Your task to perform on an android device: Clear all items from cart on bestbuy.com. Add usb-a to the cart on bestbuy.com Image 0: 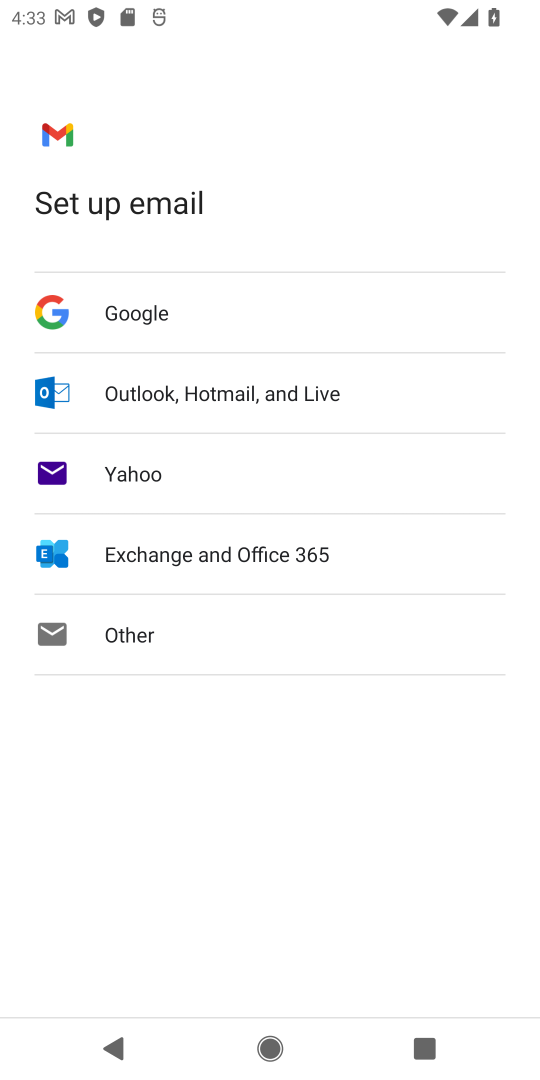
Step 0: press home button
Your task to perform on an android device: Clear all items from cart on bestbuy.com. Add usb-a to the cart on bestbuy.com Image 1: 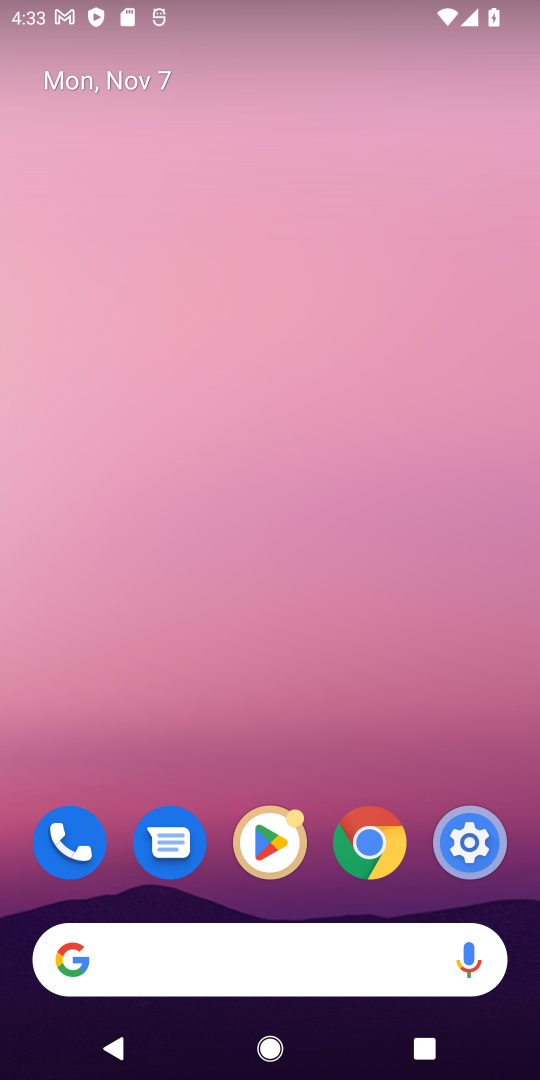
Step 1: click (375, 840)
Your task to perform on an android device: Clear all items from cart on bestbuy.com. Add usb-a to the cart on bestbuy.com Image 2: 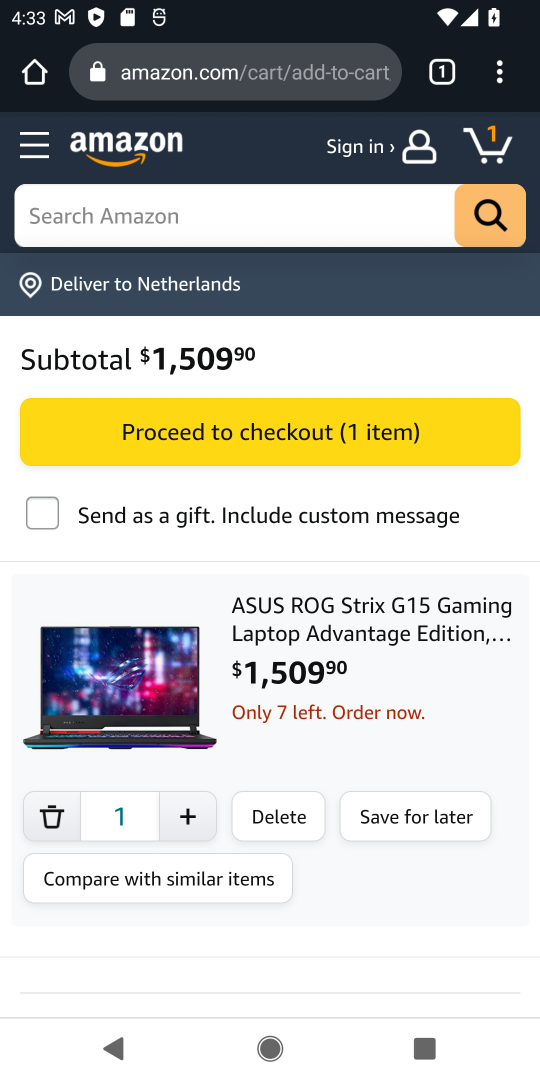
Step 2: click (239, 79)
Your task to perform on an android device: Clear all items from cart on bestbuy.com. Add usb-a to the cart on bestbuy.com Image 3: 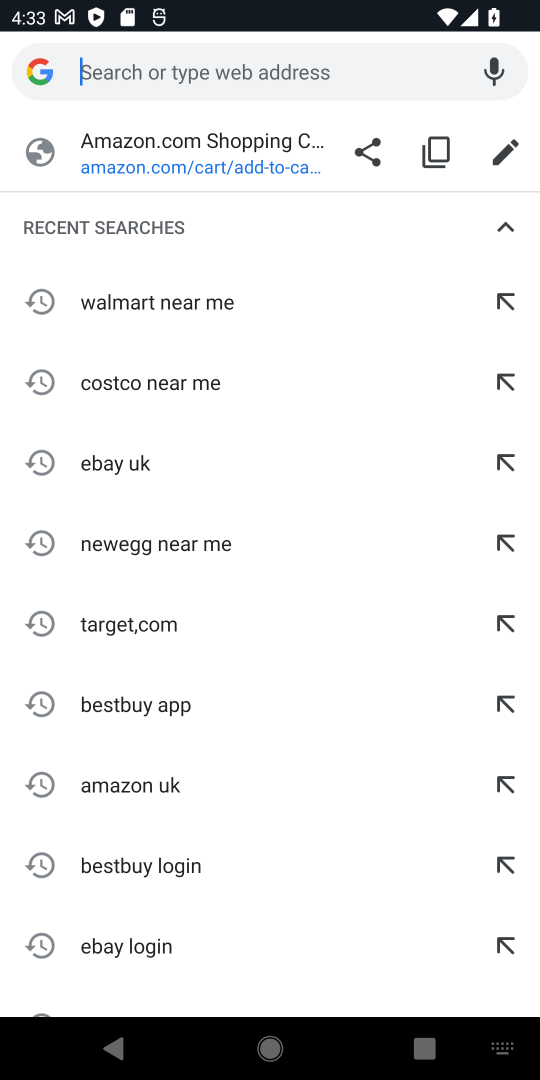
Step 3: type "bestbuy"
Your task to perform on an android device: Clear all items from cart on bestbuy.com. Add usb-a to the cart on bestbuy.com Image 4: 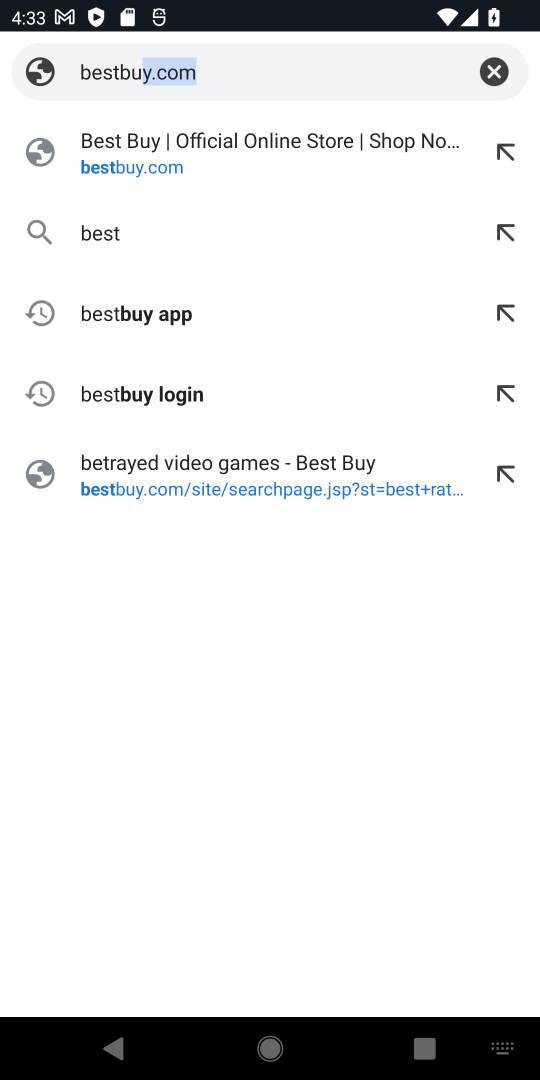
Step 4: press enter
Your task to perform on an android device: Clear all items from cart on bestbuy.com. Add usb-a to the cart on bestbuy.com Image 5: 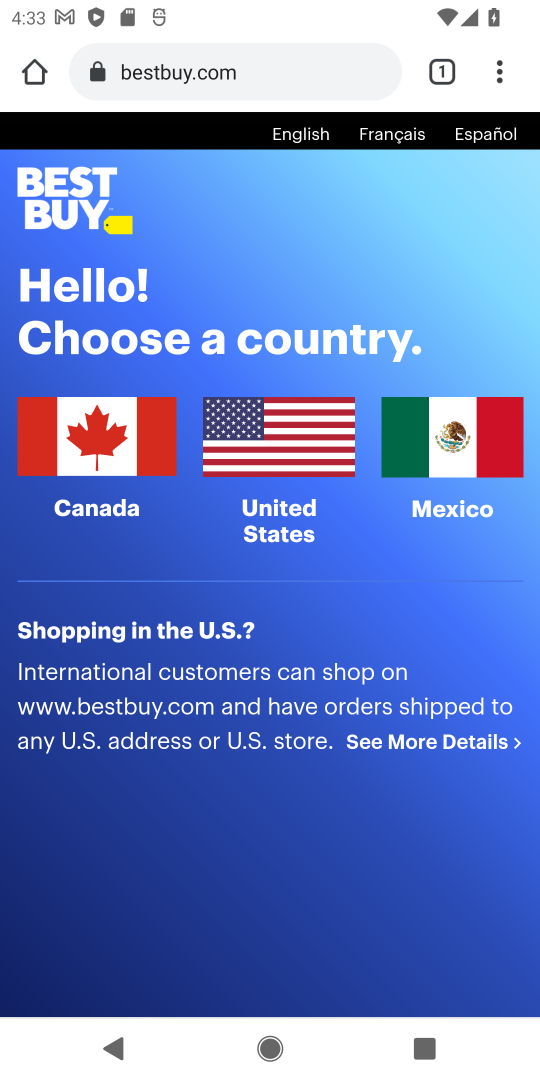
Step 5: click (87, 504)
Your task to perform on an android device: Clear all items from cart on bestbuy.com. Add usb-a to the cart on bestbuy.com Image 6: 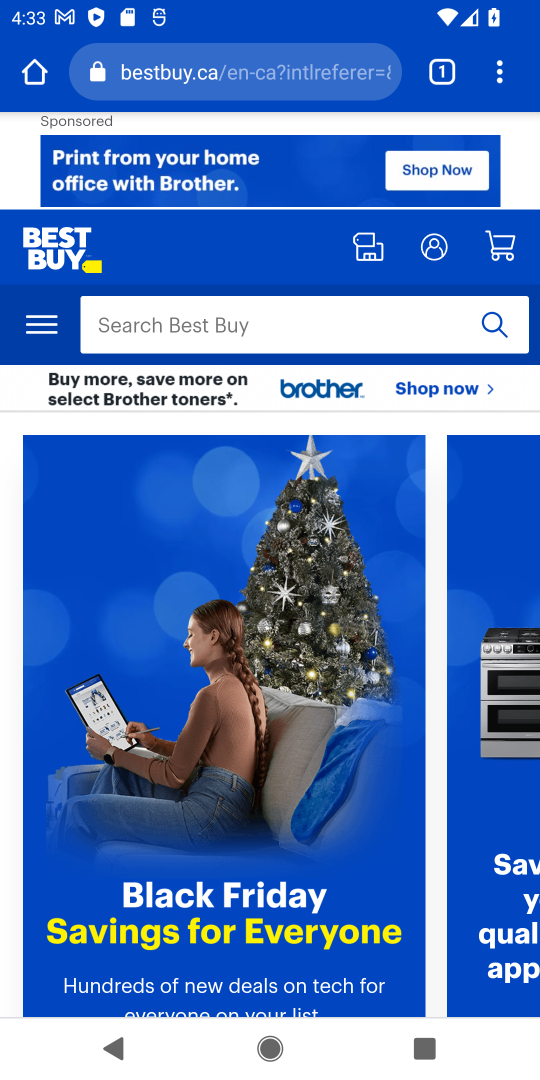
Step 6: click (216, 325)
Your task to perform on an android device: Clear all items from cart on bestbuy.com. Add usb-a to the cart on bestbuy.com Image 7: 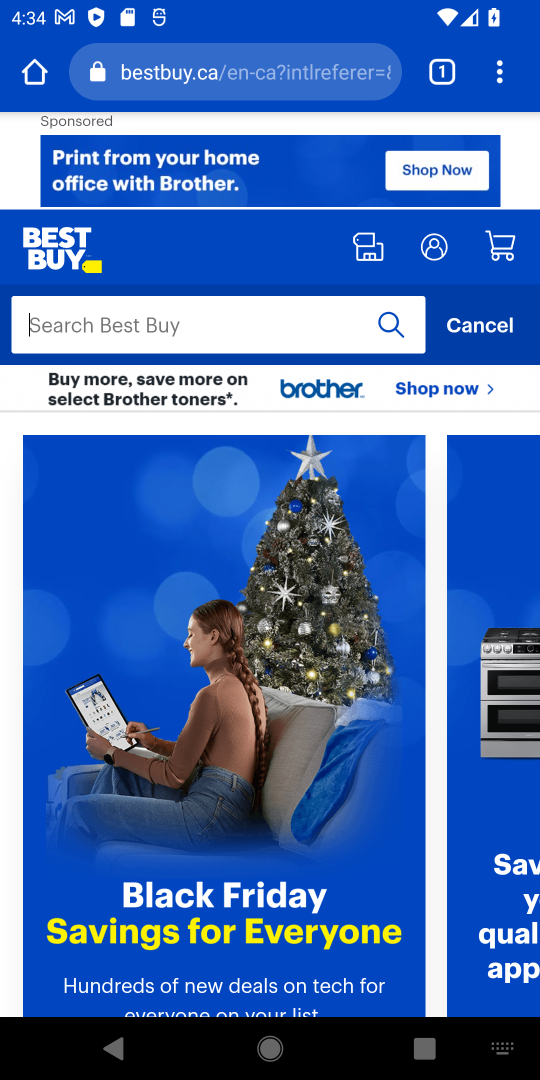
Step 7: type " usb-a "
Your task to perform on an android device: Clear all items from cart on bestbuy.com. Add usb-a to the cart on bestbuy.com Image 8: 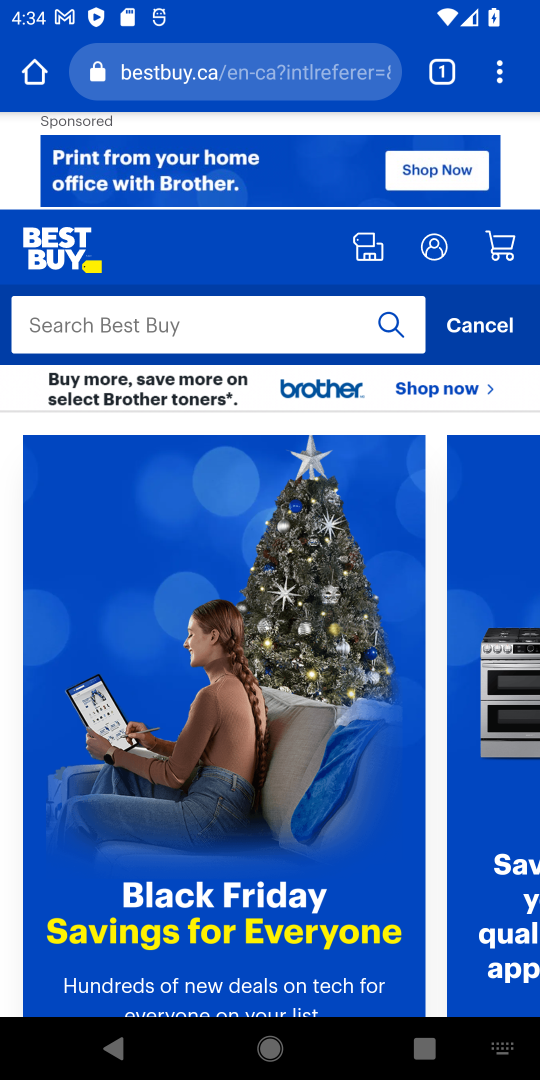
Step 8: press enter
Your task to perform on an android device: Clear all items from cart on bestbuy.com. Add usb-a to the cart on bestbuy.com Image 9: 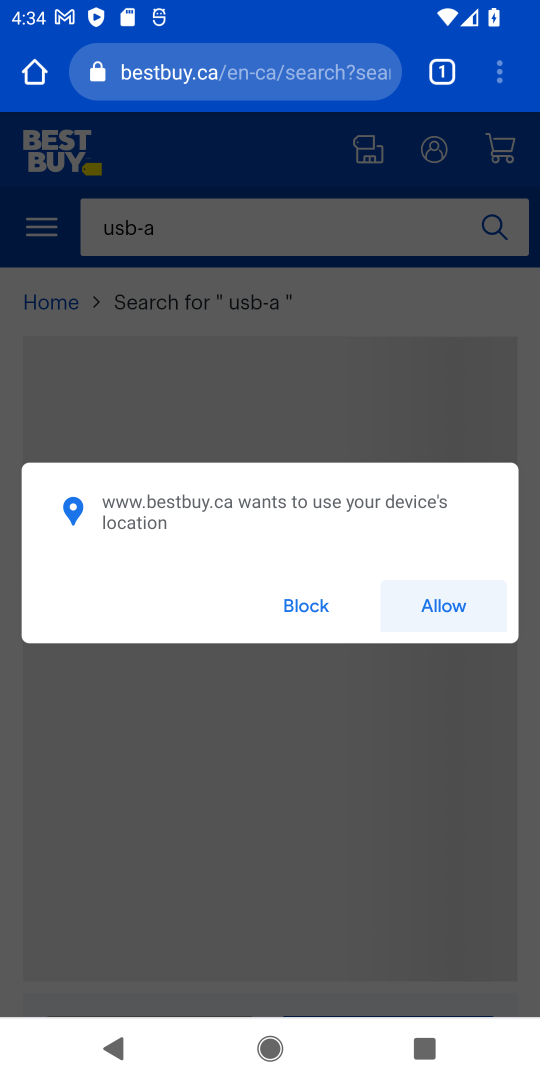
Step 9: click (306, 607)
Your task to perform on an android device: Clear all items from cart on bestbuy.com. Add usb-a to the cart on bestbuy.com Image 10: 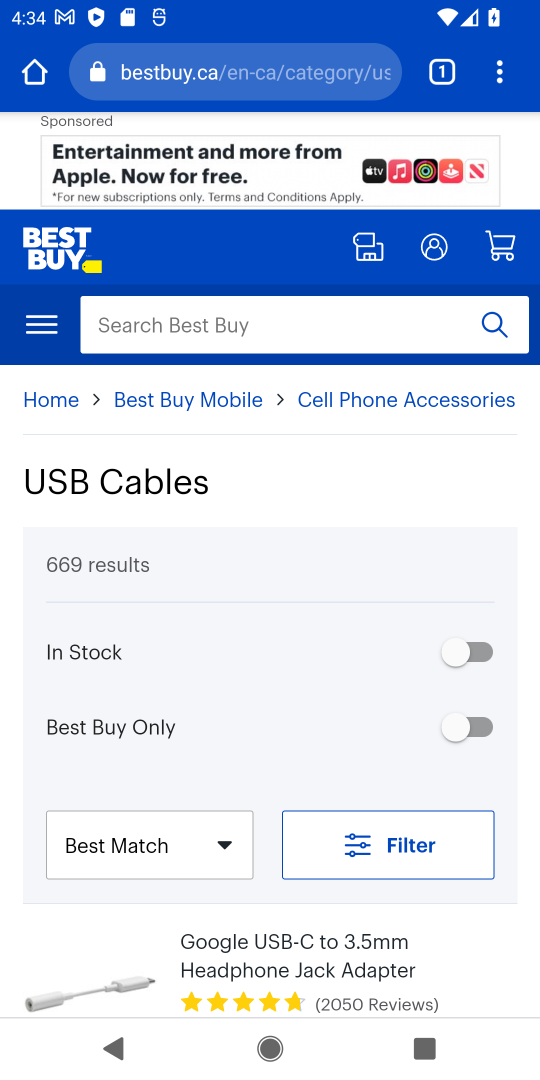
Step 10: task complete